Your task to perform on an android device: Go to accessibility settings Image 0: 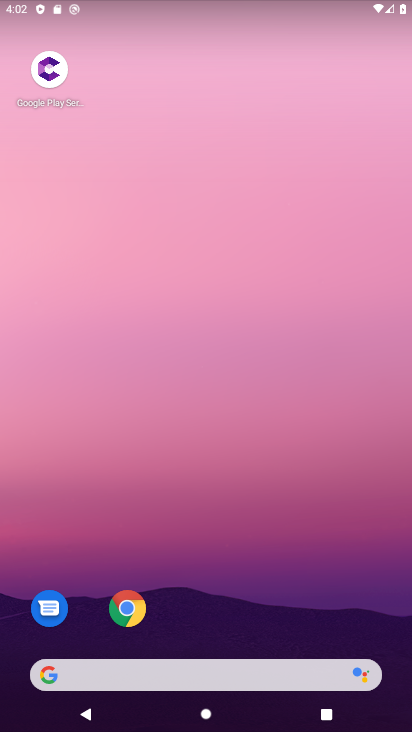
Step 0: drag from (306, 573) to (310, 27)
Your task to perform on an android device: Go to accessibility settings Image 1: 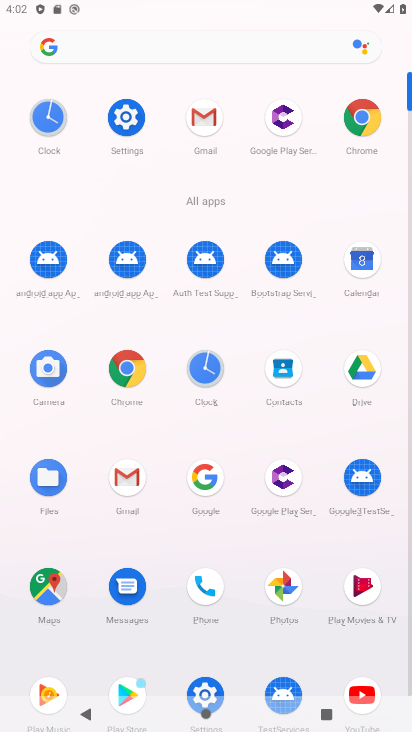
Step 1: click (129, 130)
Your task to perform on an android device: Go to accessibility settings Image 2: 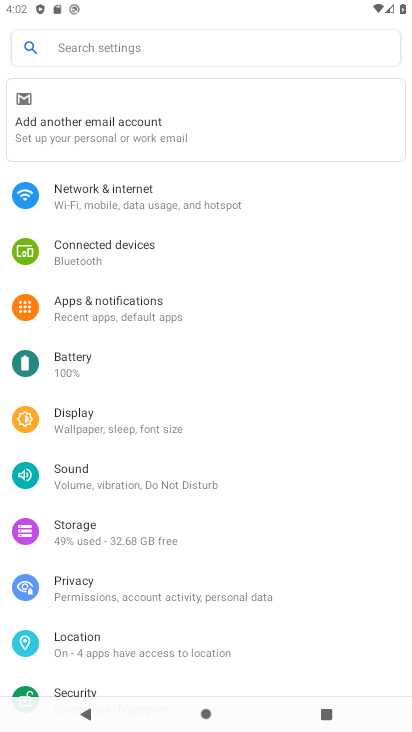
Step 2: drag from (138, 622) to (132, 386)
Your task to perform on an android device: Go to accessibility settings Image 3: 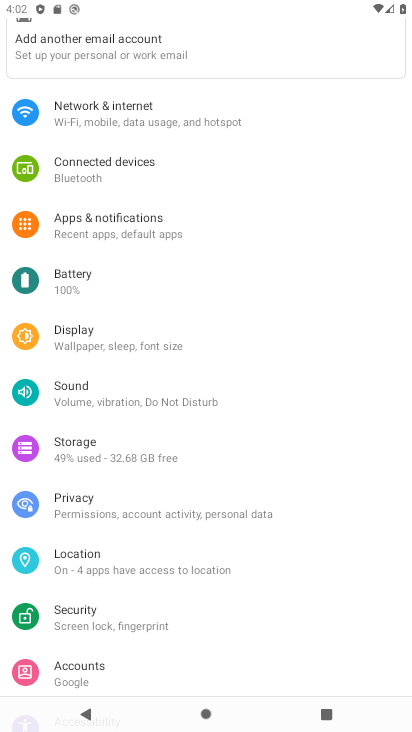
Step 3: drag from (99, 668) to (93, 208)
Your task to perform on an android device: Go to accessibility settings Image 4: 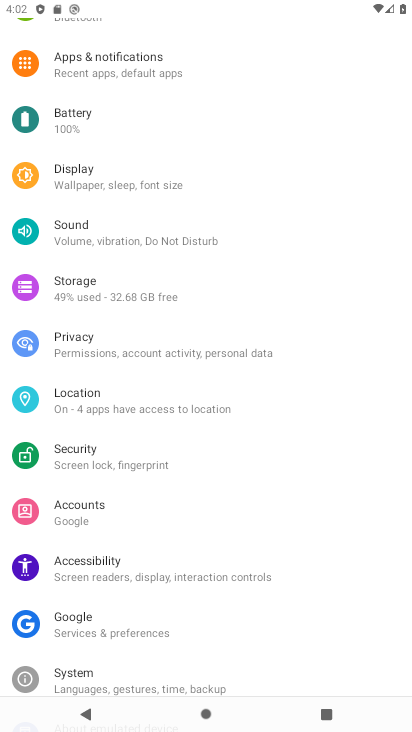
Step 4: click (82, 573)
Your task to perform on an android device: Go to accessibility settings Image 5: 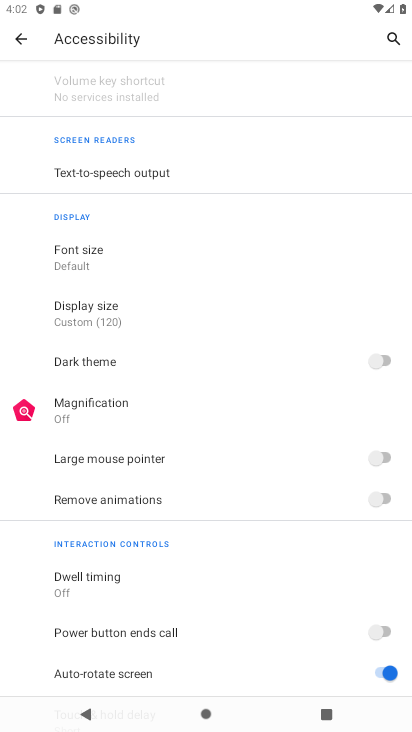
Step 5: task complete